Your task to perform on an android device: set the stopwatch Image 0: 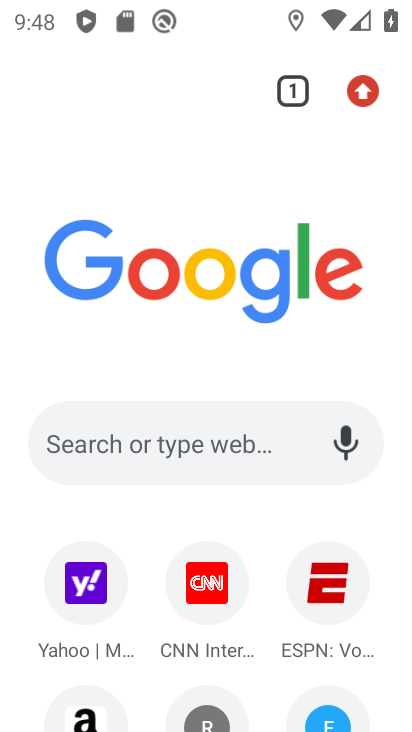
Step 0: press home button
Your task to perform on an android device: set the stopwatch Image 1: 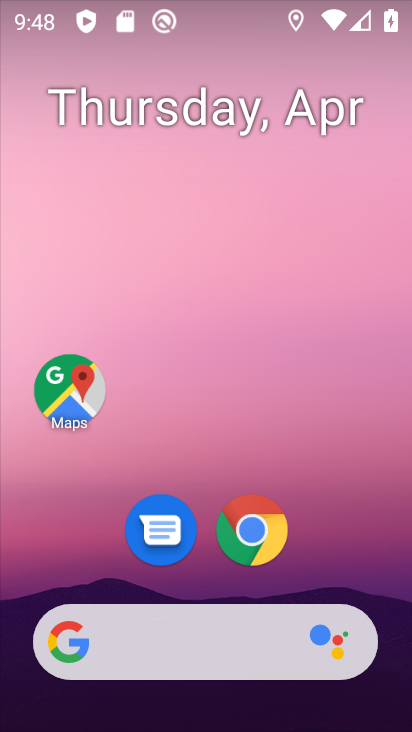
Step 1: drag from (354, 585) to (277, 59)
Your task to perform on an android device: set the stopwatch Image 2: 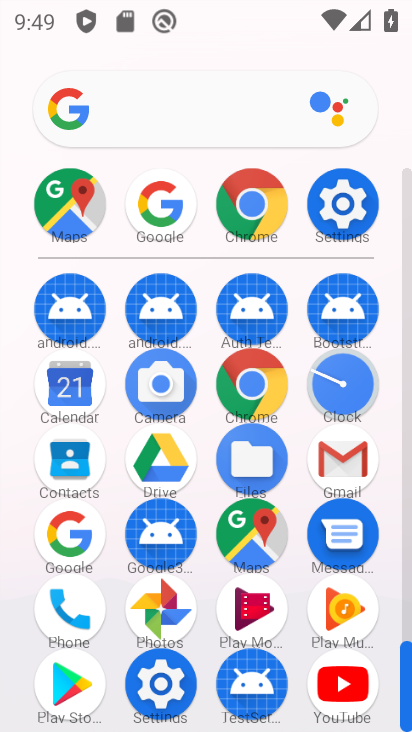
Step 2: click (345, 376)
Your task to perform on an android device: set the stopwatch Image 3: 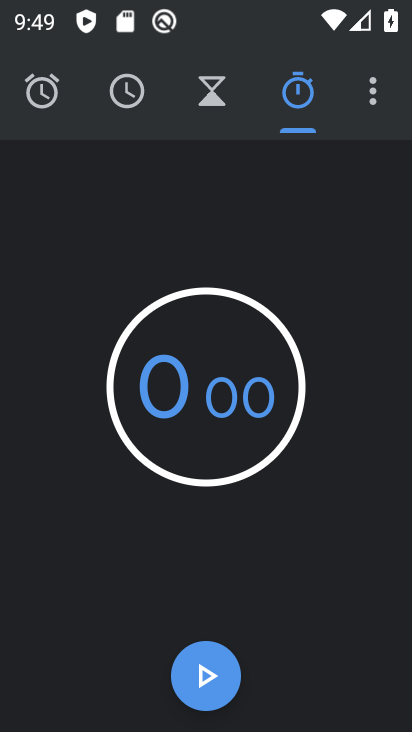
Step 3: click (202, 669)
Your task to perform on an android device: set the stopwatch Image 4: 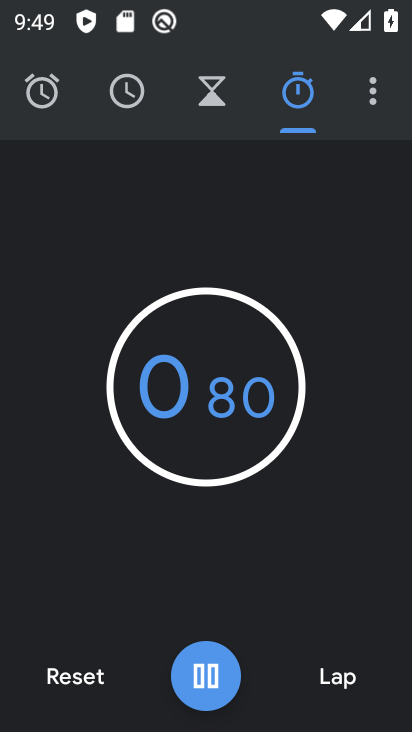
Step 4: click (202, 669)
Your task to perform on an android device: set the stopwatch Image 5: 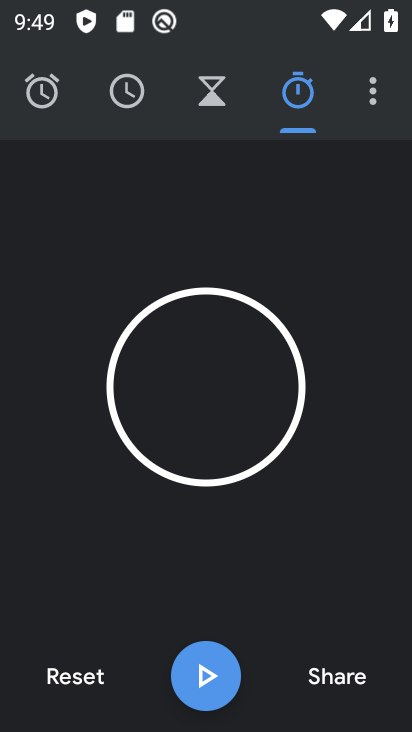
Step 5: task complete